Your task to perform on an android device: turn on data saver in the chrome app Image 0: 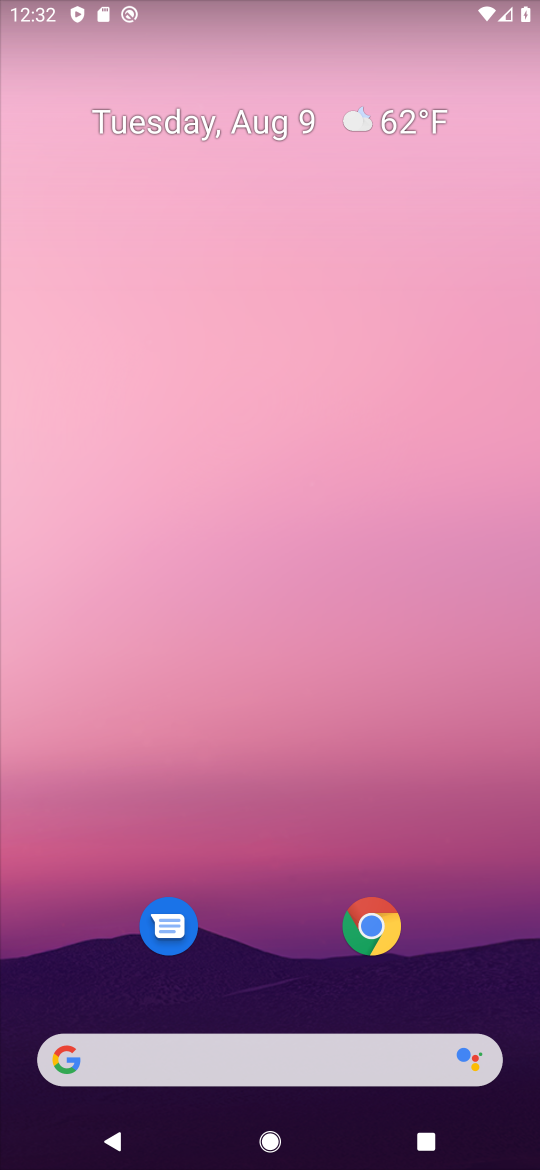
Step 0: click (392, 933)
Your task to perform on an android device: turn on data saver in the chrome app Image 1: 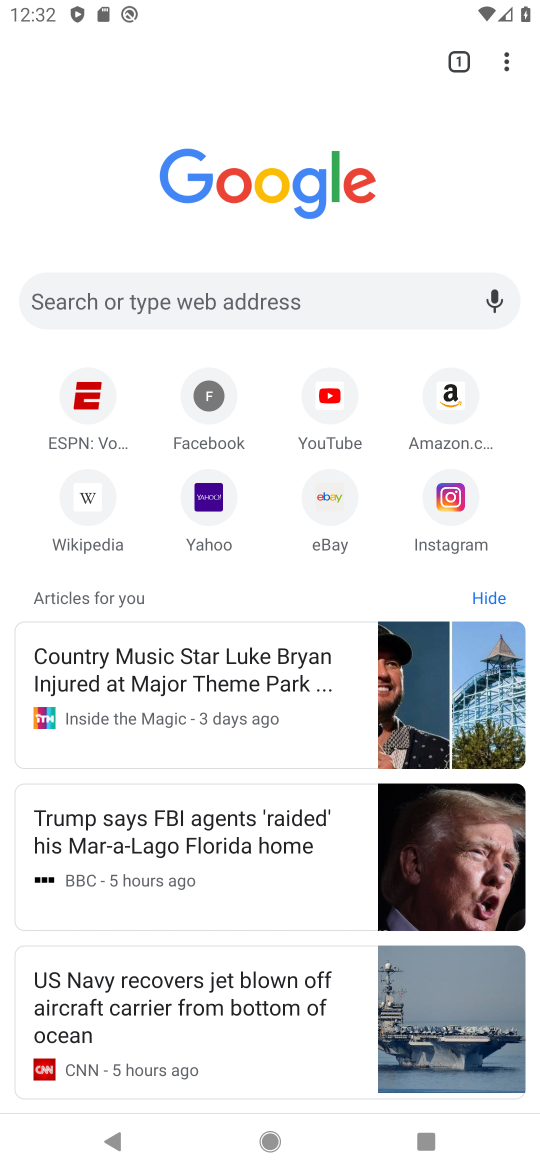
Step 1: click (510, 65)
Your task to perform on an android device: turn on data saver in the chrome app Image 2: 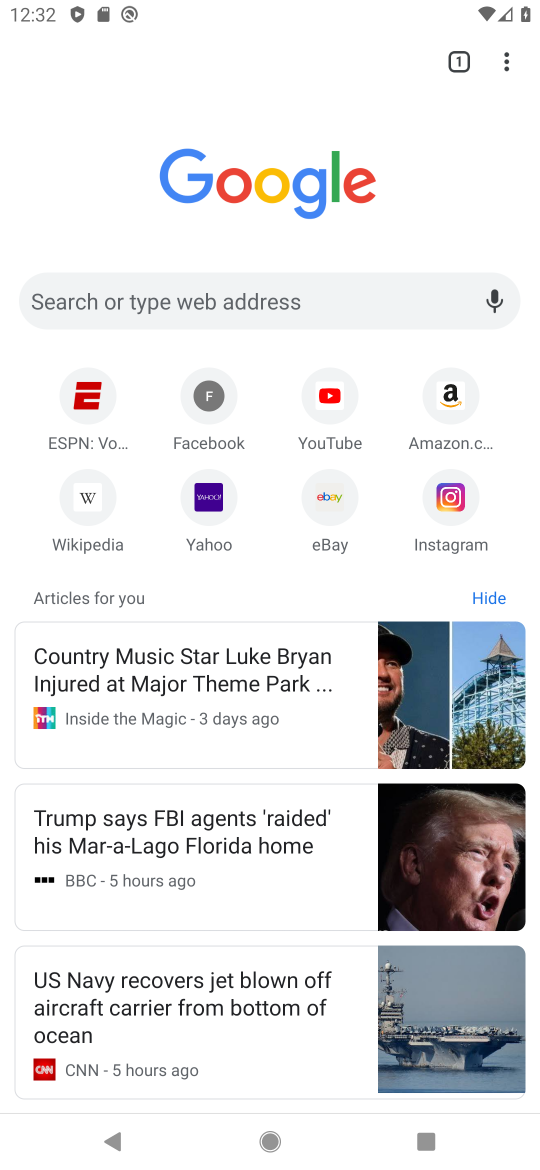
Step 2: click (509, 67)
Your task to perform on an android device: turn on data saver in the chrome app Image 3: 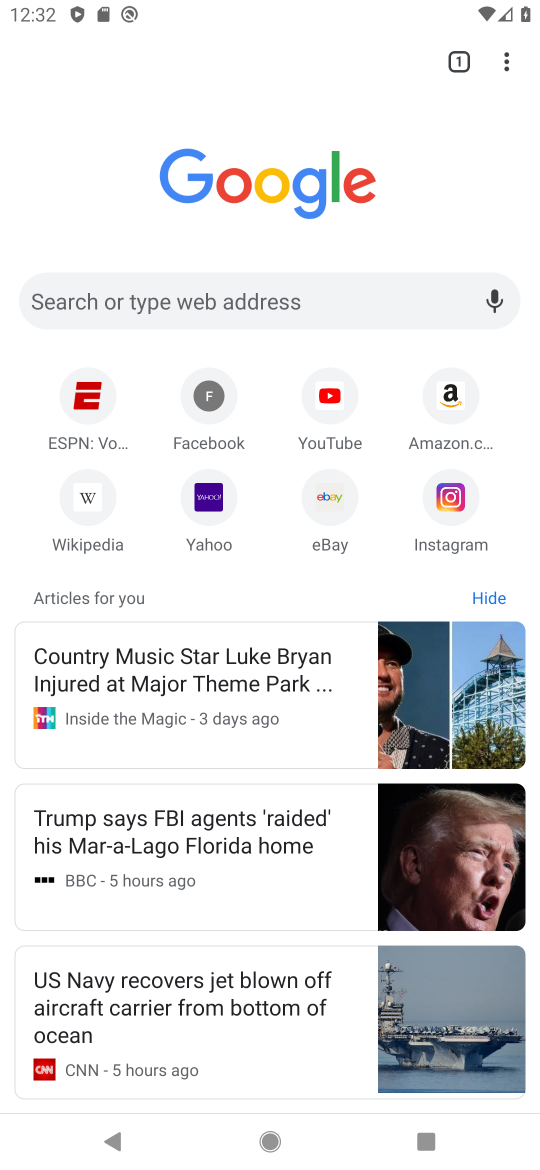
Step 3: click (503, 71)
Your task to perform on an android device: turn on data saver in the chrome app Image 4: 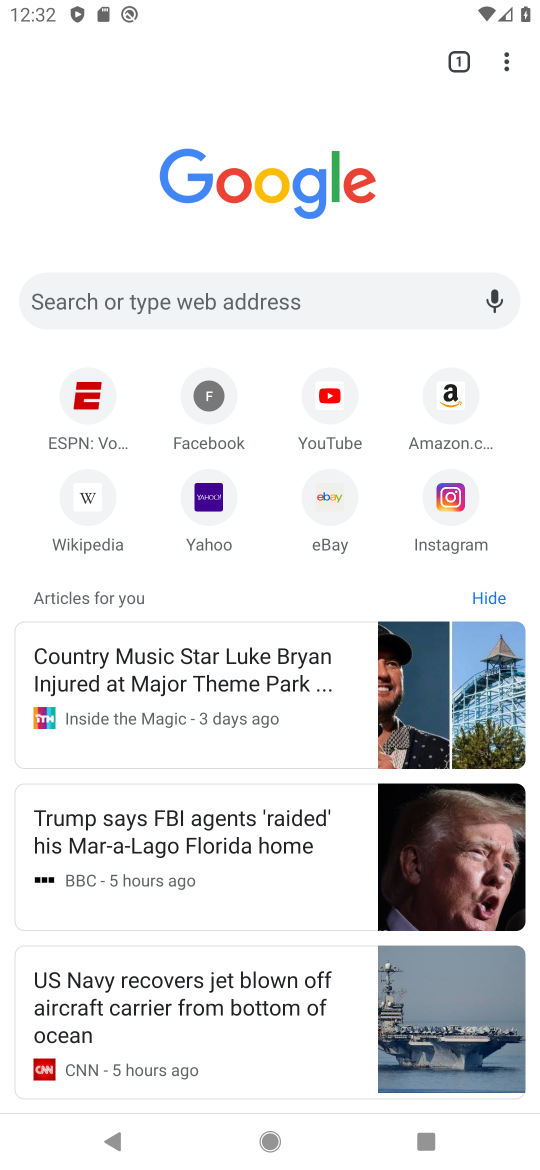
Step 4: click (506, 66)
Your task to perform on an android device: turn on data saver in the chrome app Image 5: 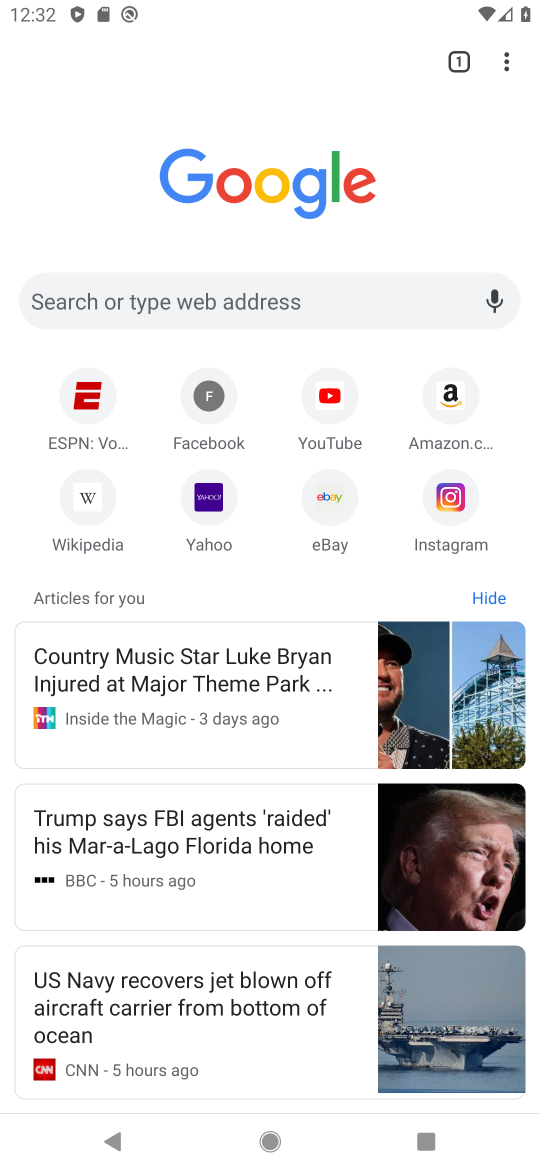
Step 5: click (506, 66)
Your task to perform on an android device: turn on data saver in the chrome app Image 6: 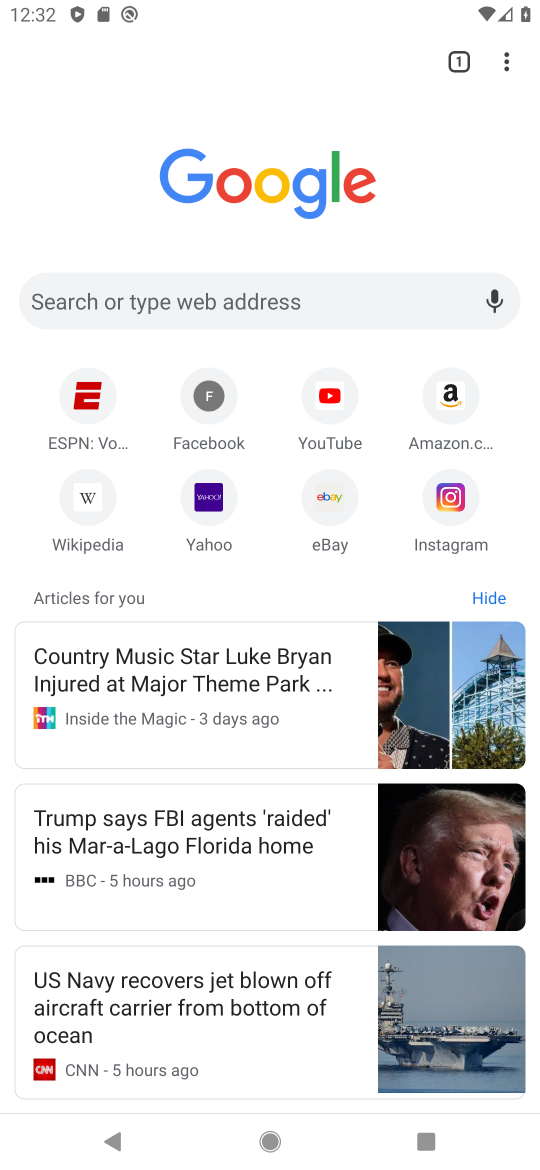
Step 6: click (510, 61)
Your task to perform on an android device: turn on data saver in the chrome app Image 7: 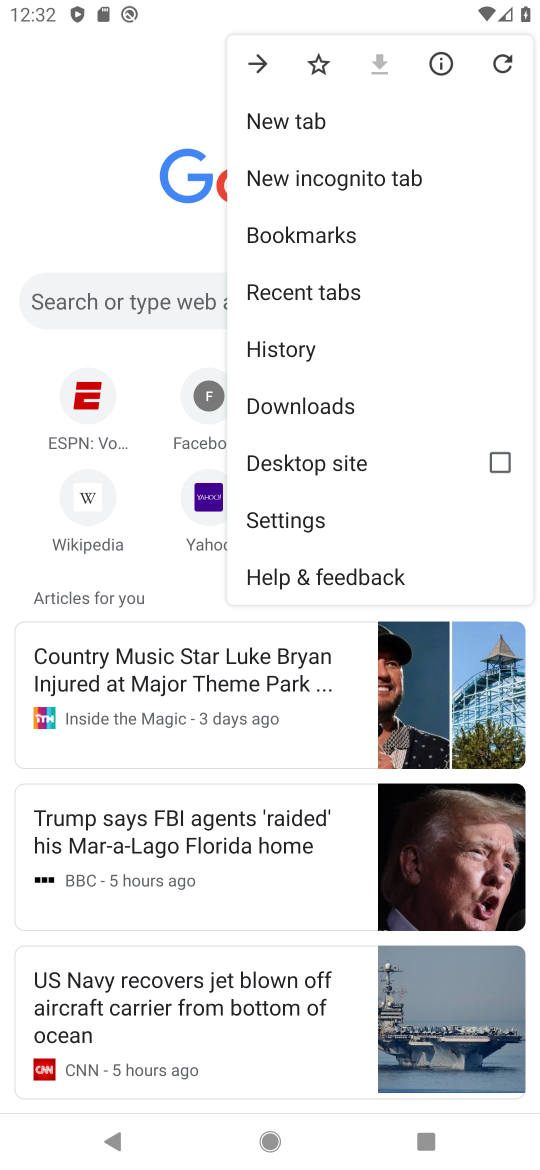
Step 7: click (286, 520)
Your task to perform on an android device: turn on data saver in the chrome app Image 8: 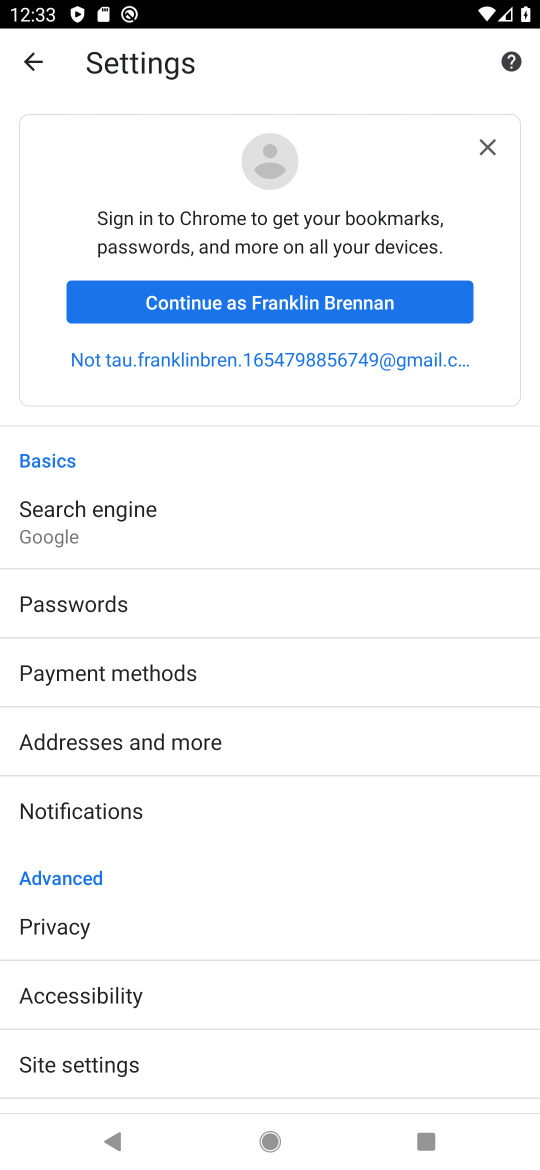
Step 8: drag from (39, 673) to (284, 311)
Your task to perform on an android device: turn on data saver in the chrome app Image 9: 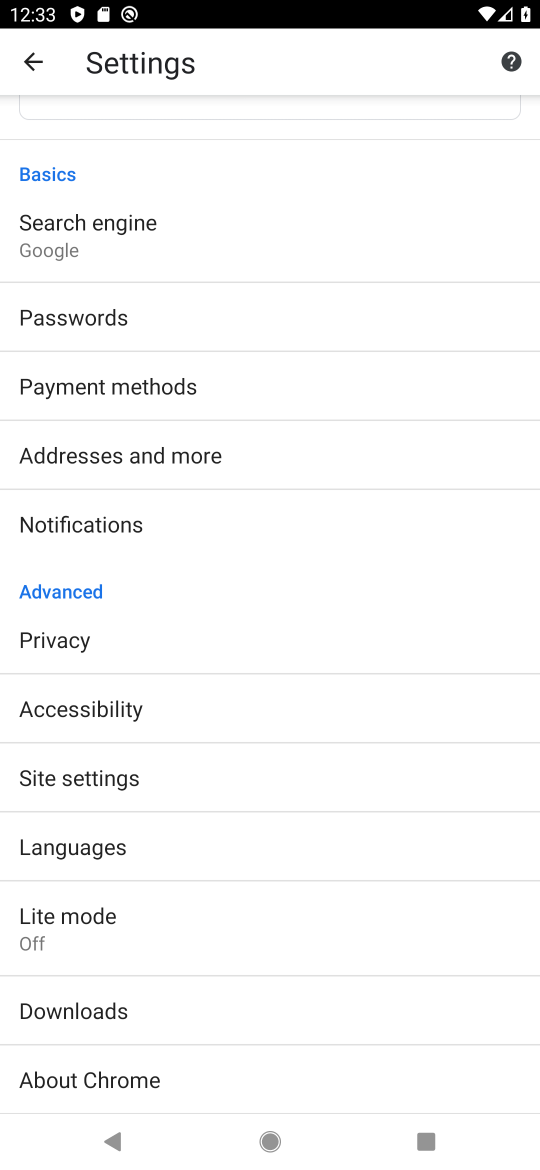
Step 9: click (106, 774)
Your task to perform on an android device: turn on data saver in the chrome app Image 10: 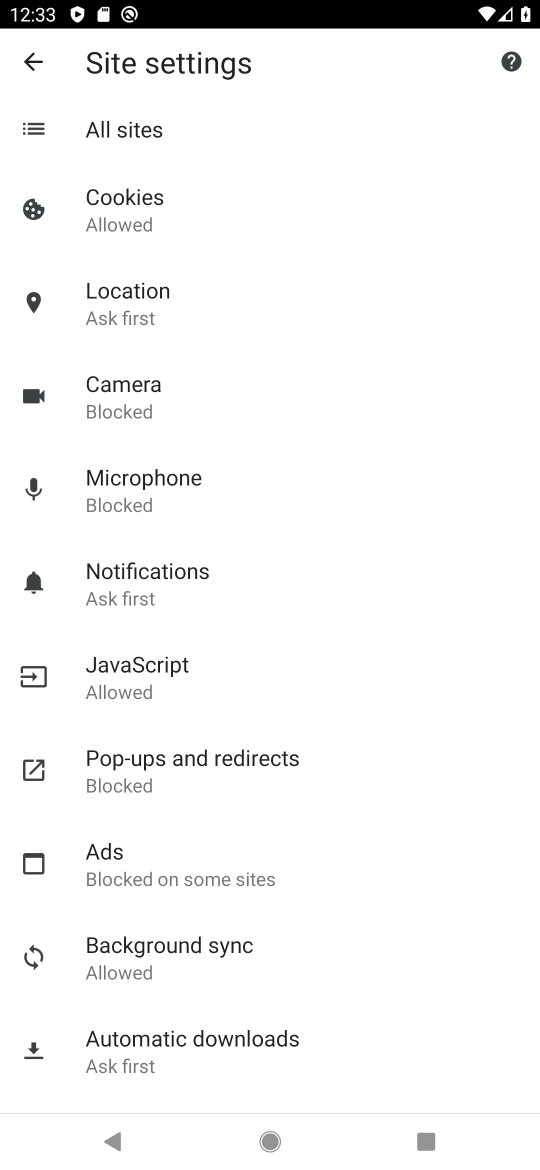
Step 10: press back button
Your task to perform on an android device: turn on data saver in the chrome app Image 11: 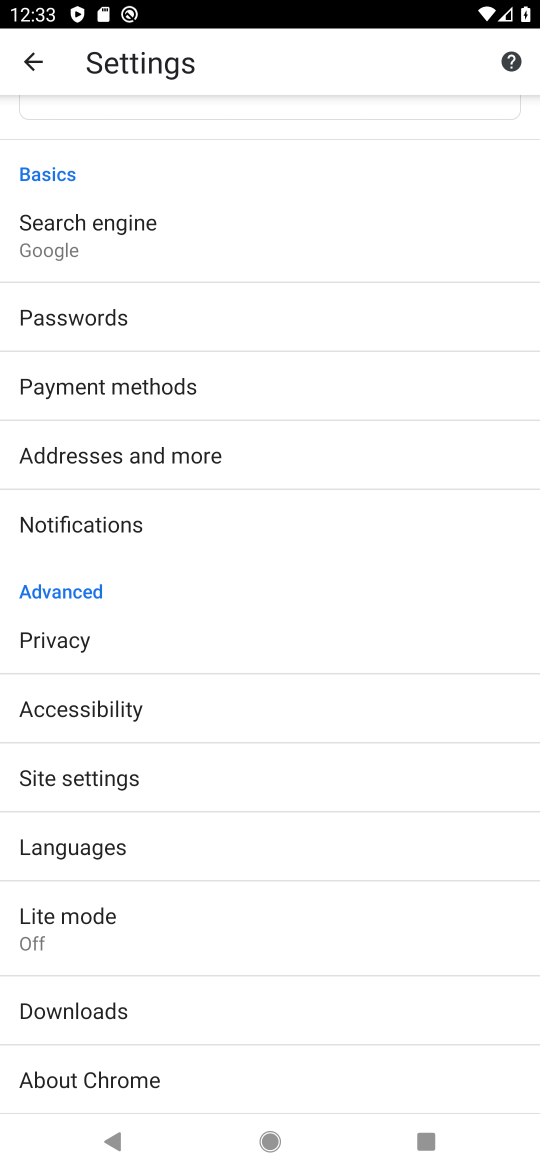
Step 11: click (99, 914)
Your task to perform on an android device: turn on data saver in the chrome app Image 12: 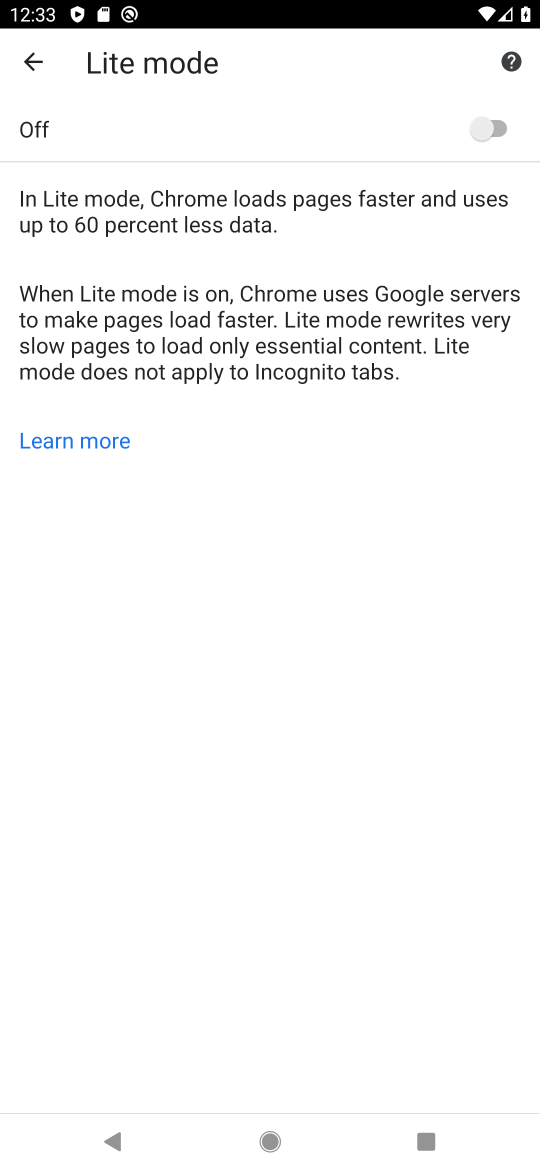
Step 12: click (490, 140)
Your task to perform on an android device: turn on data saver in the chrome app Image 13: 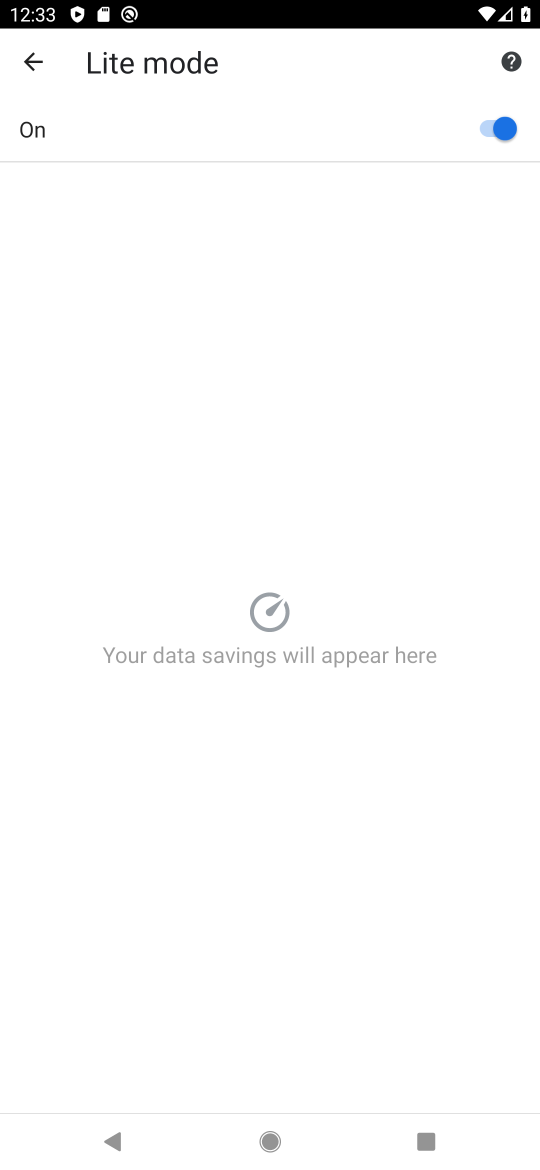
Step 13: task complete